Your task to perform on an android device: open a new tab in the chrome app Image 0: 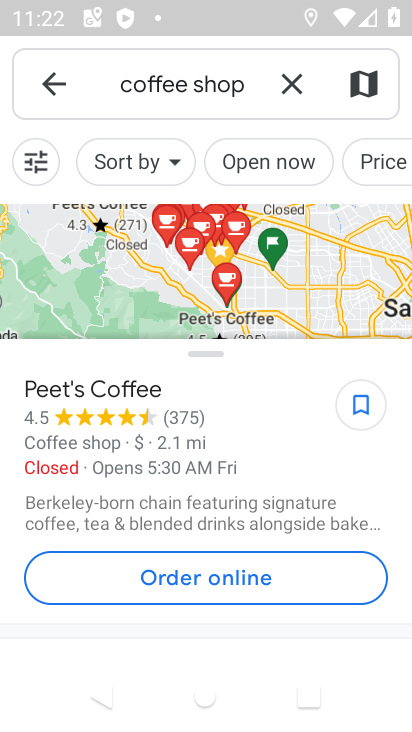
Step 0: press home button
Your task to perform on an android device: open a new tab in the chrome app Image 1: 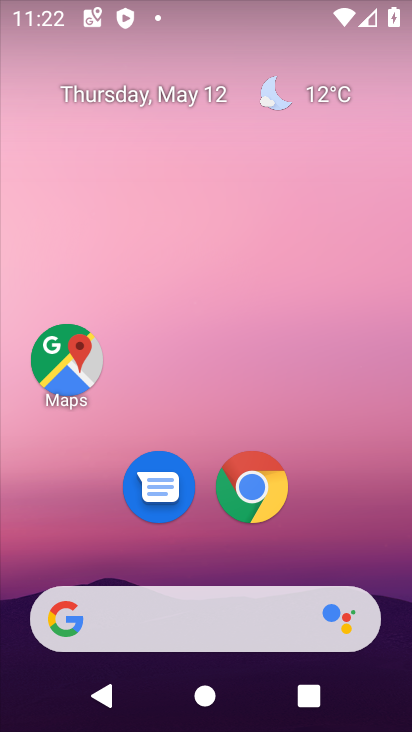
Step 1: click (251, 496)
Your task to perform on an android device: open a new tab in the chrome app Image 2: 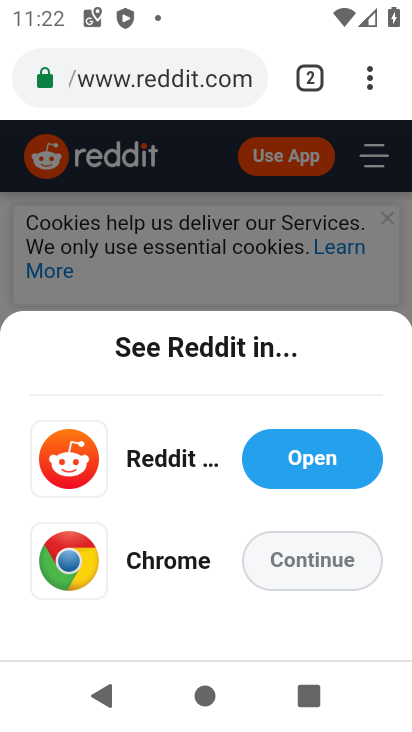
Step 2: click (372, 87)
Your task to perform on an android device: open a new tab in the chrome app Image 3: 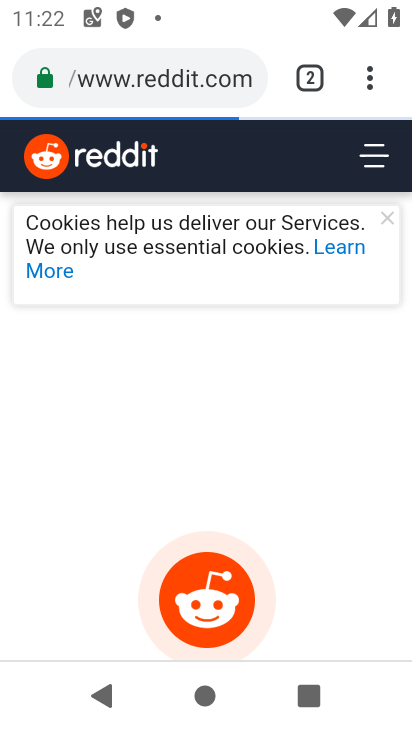
Step 3: click (374, 70)
Your task to perform on an android device: open a new tab in the chrome app Image 4: 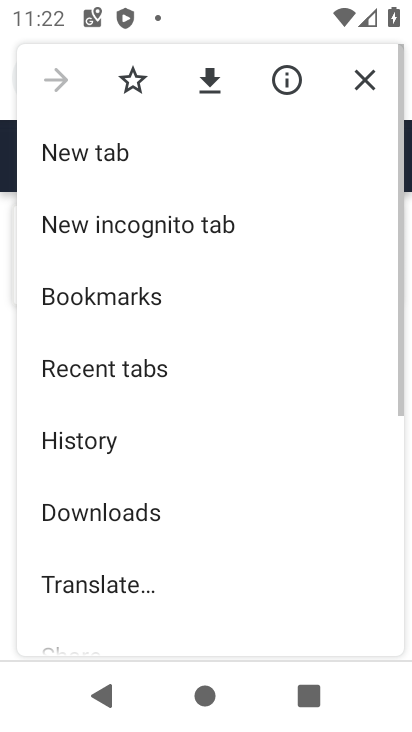
Step 4: click (120, 155)
Your task to perform on an android device: open a new tab in the chrome app Image 5: 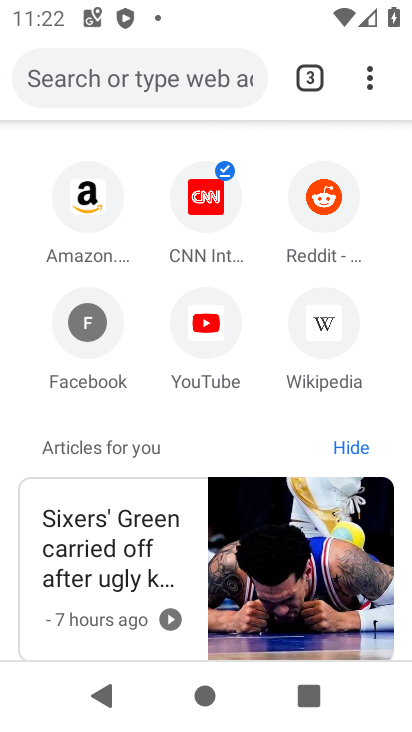
Step 5: task complete